Your task to perform on an android device: check the backup settings in the google photos Image 0: 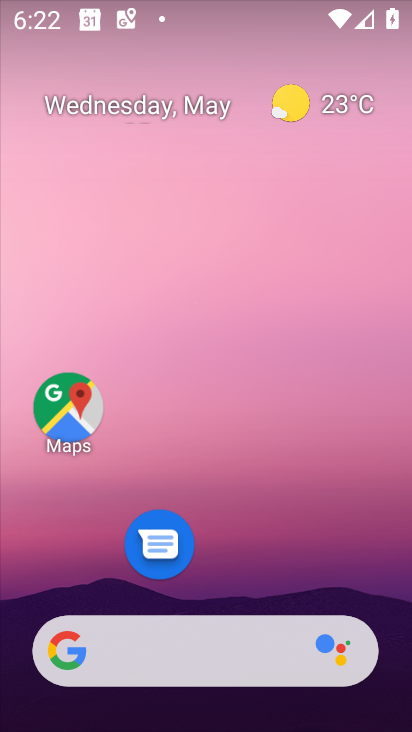
Step 0: drag from (266, 516) to (312, 0)
Your task to perform on an android device: check the backup settings in the google photos Image 1: 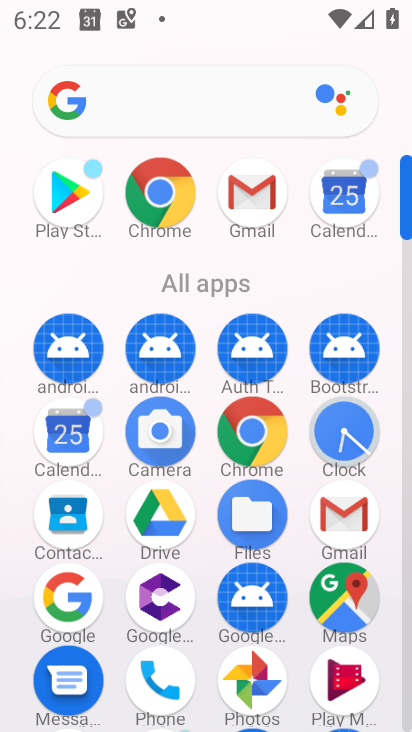
Step 1: click (249, 678)
Your task to perform on an android device: check the backup settings in the google photos Image 2: 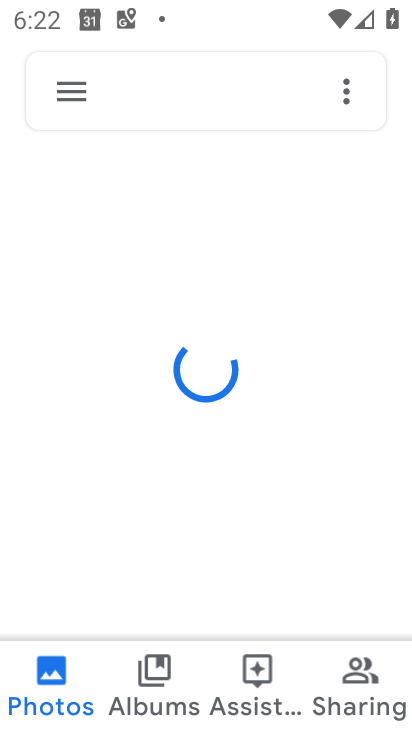
Step 2: click (67, 90)
Your task to perform on an android device: check the backup settings in the google photos Image 3: 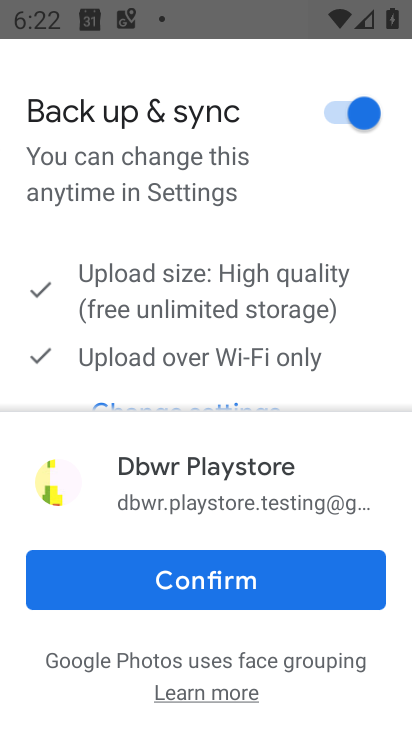
Step 3: click (229, 576)
Your task to perform on an android device: check the backup settings in the google photos Image 4: 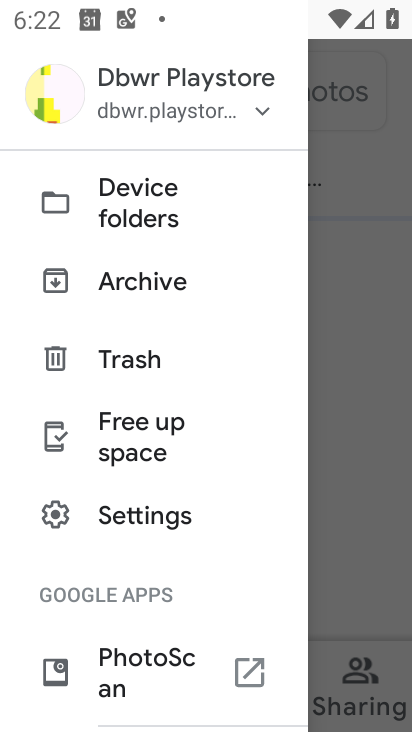
Step 4: click (145, 514)
Your task to perform on an android device: check the backup settings in the google photos Image 5: 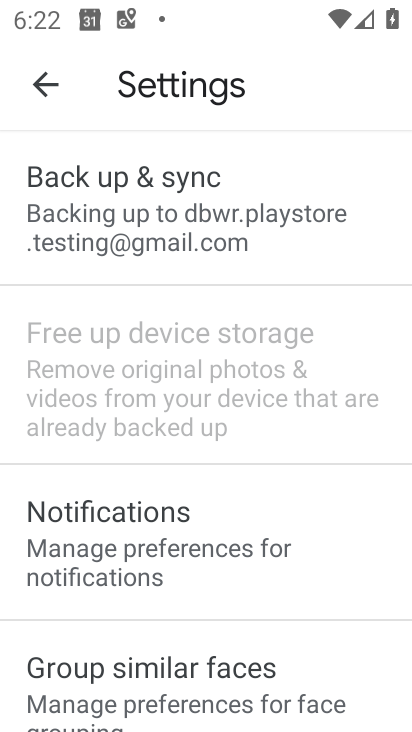
Step 5: click (125, 183)
Your task to perform on an android device: check the backup settings in the google photos Image 6: 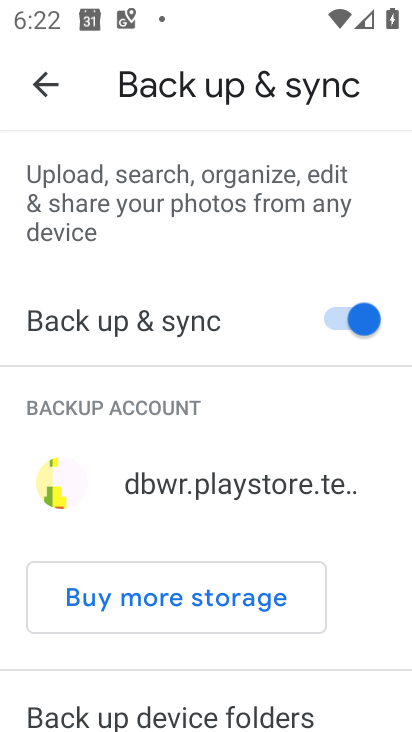
Step 6: drag from (199, 516) to (161, 208)
Your task to perform on an android device: check the backup settings in the google photos Image 7: 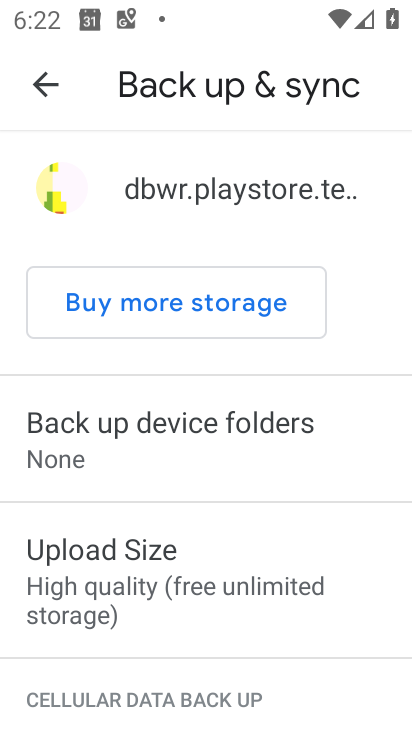
Step 7: click (171, 425)
Your task to perform on an android device: check the backup settings in the google photos Image 8: 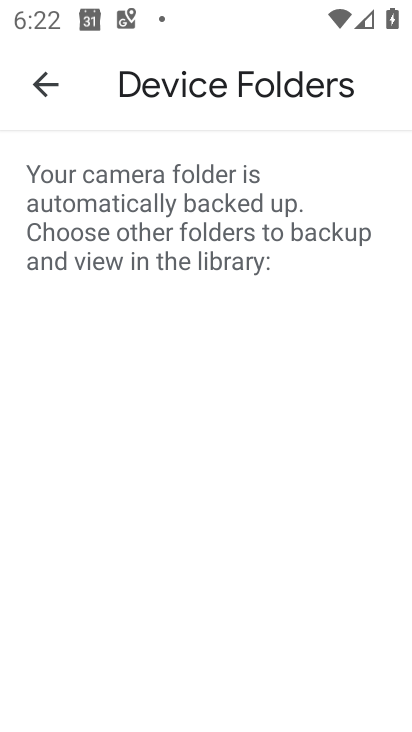
Step 8: click (47, 82)
Your task to perform on an android device: check the backup settings in the google photos Image 9: 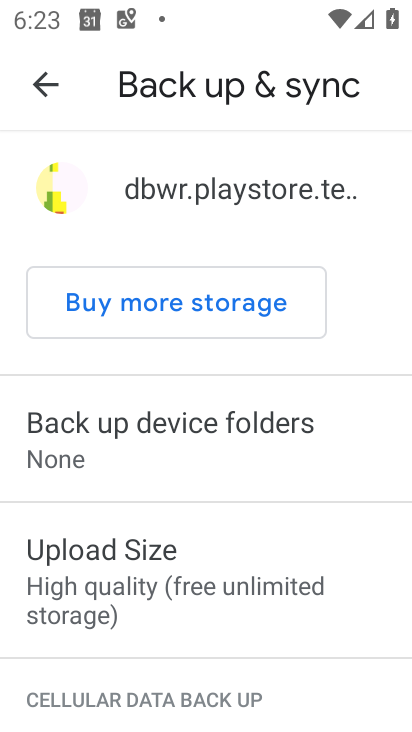
Step 9: task complete